Your task to perform on an android device: open wifi settings Image 0: 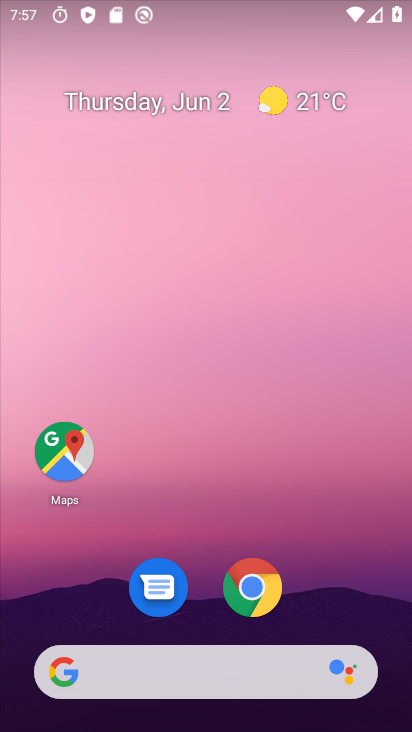
Step 0: drag from (316, 635) to (321, 22)
Your task to perform on an android device: open wifi settings Image 1: 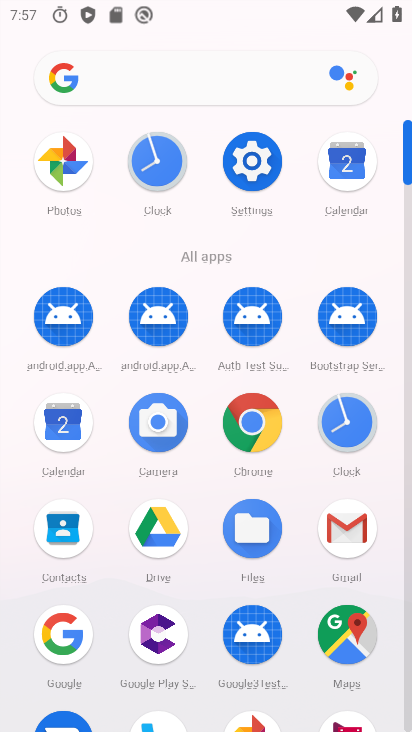
Step 1: click (242, 166)
Your task to perform on an android device: open wifi settings Image 2: 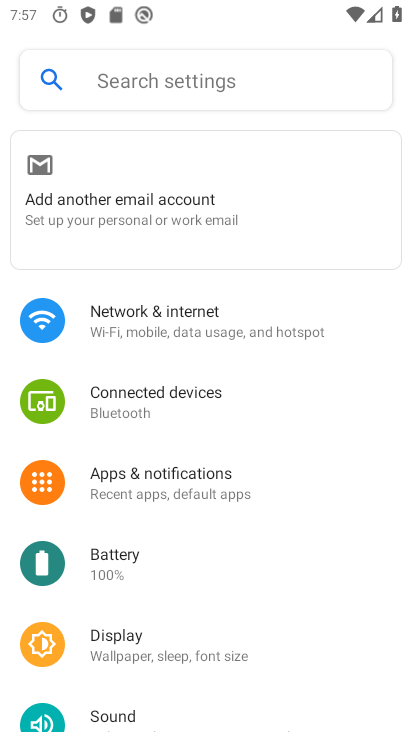
Step 2: click (167, 327)
Your task to perform on an android device: open wifi settings Image 3: 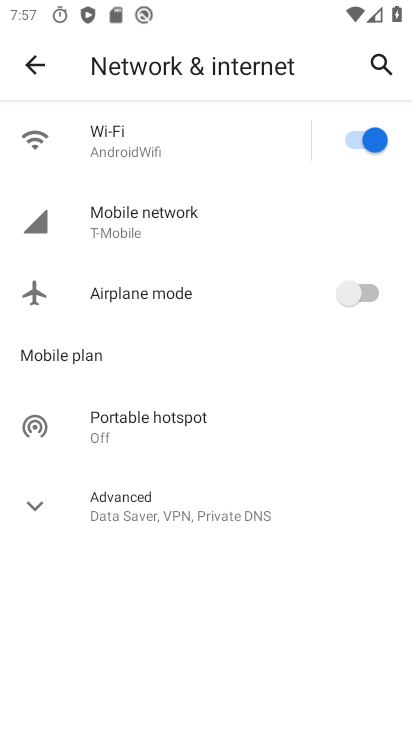
Step 3: click (105, 152)
Your task to perform on an android device: open wifi settings Image 4: 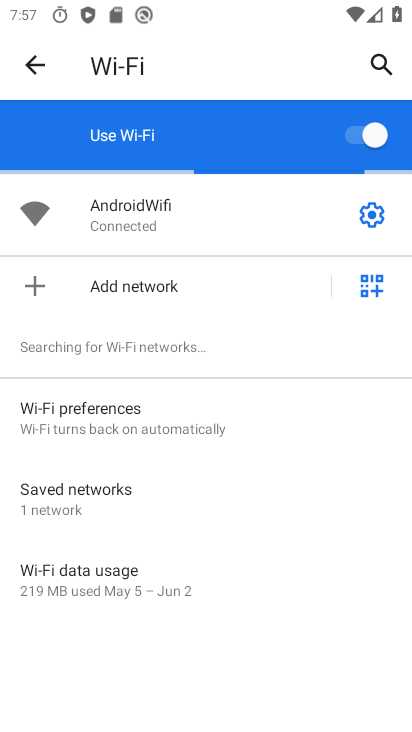
Step 4: task complete